Your task to perform on an android device: Show the shopping cart on walmart. Add "sony triple a" to the cart on walmart Image 0: 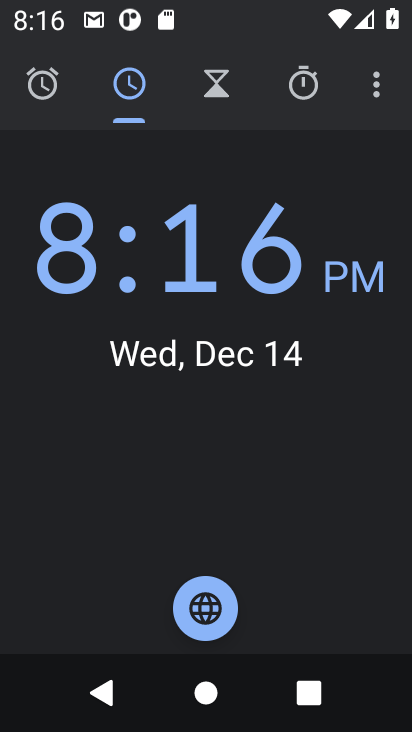
Step 0: press home button
Your task to perform on an android device: Show the shopping cart on walmart. Add "sony triple a" to the cart on walmart Image 1: 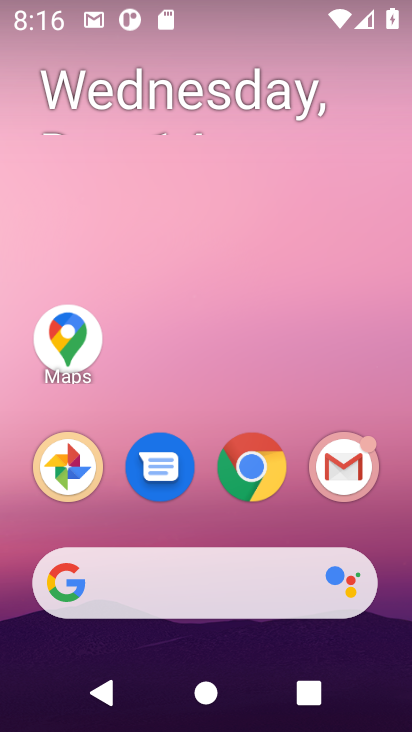
Step 1: click (265, 479)
Your task to perform on an android device: Show the shopping cart on walmart. Add "sony triple a" to the cart on walmart Image 2: 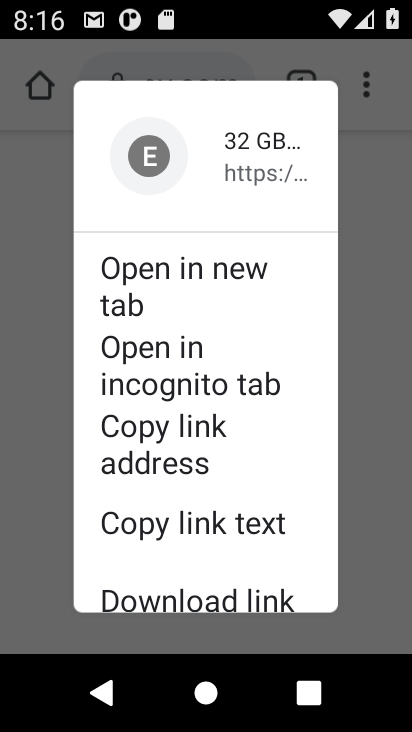
Step 2: click (386, 241)
Your task to perform on an android device: Show the shopping cart on walmart. Add "sony triple a" to the cart on walmart Image 3: 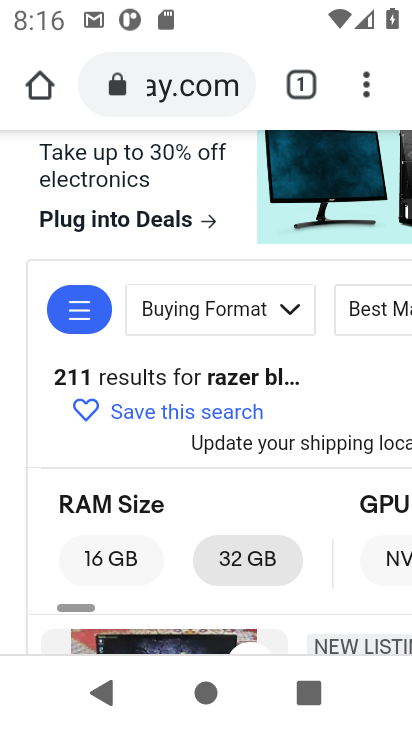
Step 3: click (169, 94)
Your task to perform on an android device: Show the shopping cart on walmart. Add "sony triple a" to the cart on walmart Image 4: 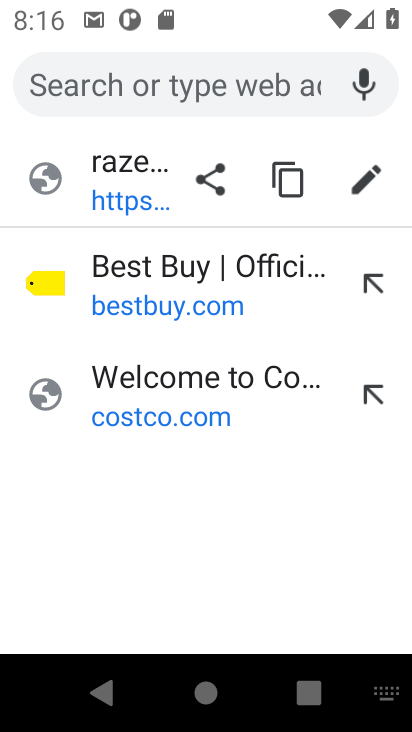
Step 4: type "walmart"
Your task to perform on an android device: Show the shopping cart on walmart. Add "sony triple a" to the cart on walmart Image 5: 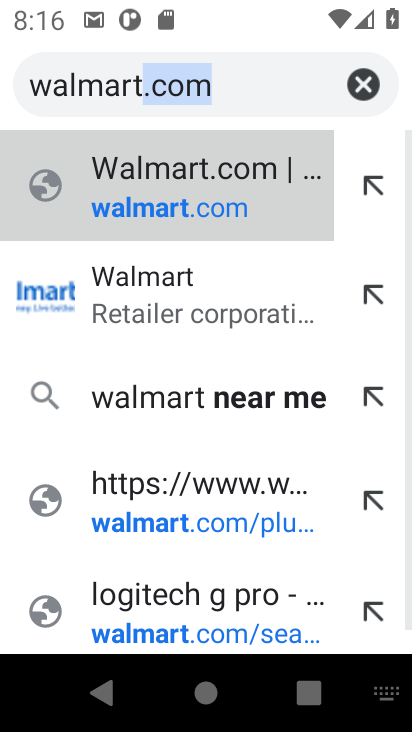
Step 5: click (165, 199)
Your task to perform on an android device: Show the shopping cart on walmart. Add "sony triple a" to the cart on walmart Image 6: 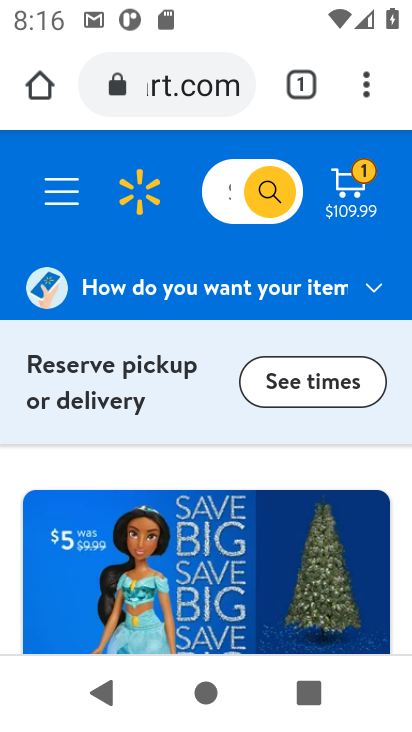
Step 6: click (241, 212)
Your task to perform on an android device: Show the shopping cart on walmart. Add "sony triple a" to the cart on walmart Image 7: 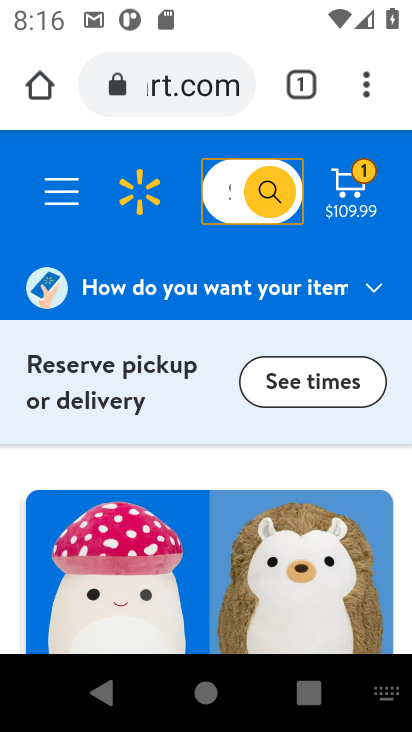
Step 7: type "sony triple"
Your task to perform on an android device: Show the shopping cart on walmart. Add "sony triple a" to the cart on walmart Image 8: 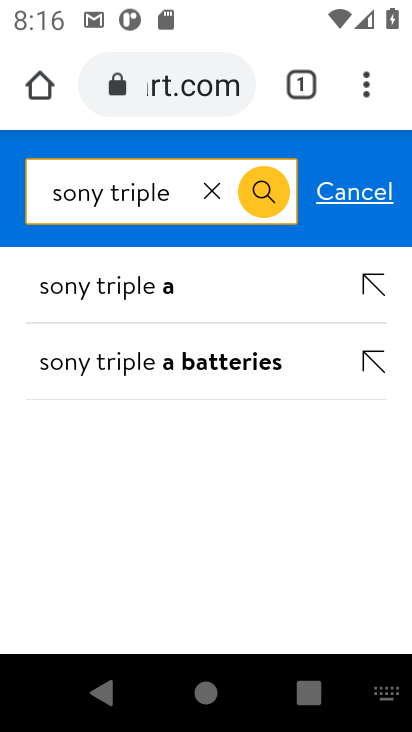
Step 8: click (259, 173)
Your task to perform on an android device: Show the shopping cart on walmart. Add "sony triple a" to the cart on walmart Image 9: 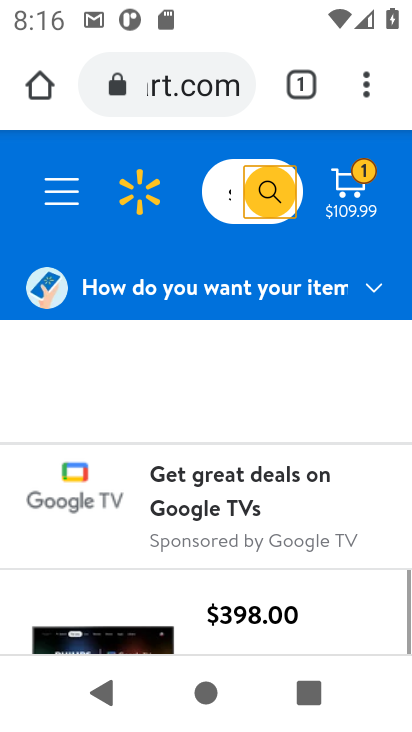
Step 9: task complete